Your task to perform on an android device: toggle wifi Image 0: 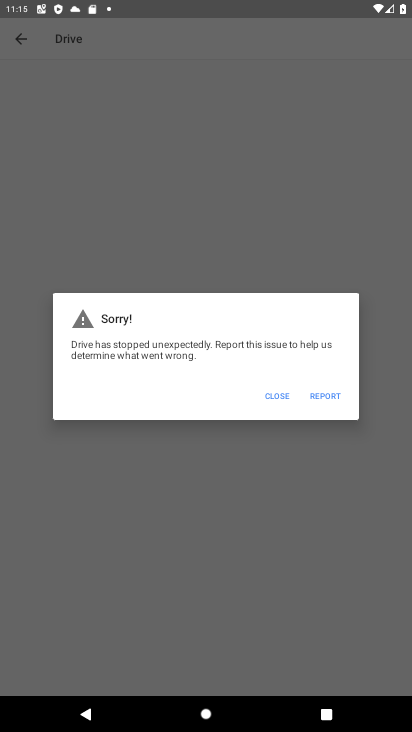
Step 0: press back button
Your task to perform on an android device: toggle wifi Image 1: 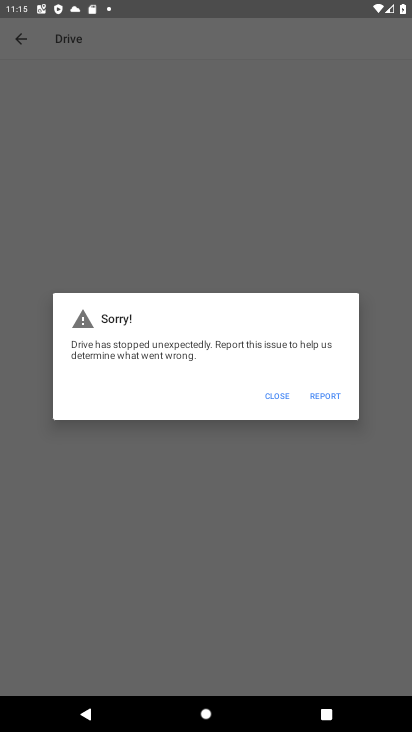
Step 1: press home button
Your task to perform on an android device: toggle wifi Image 2: 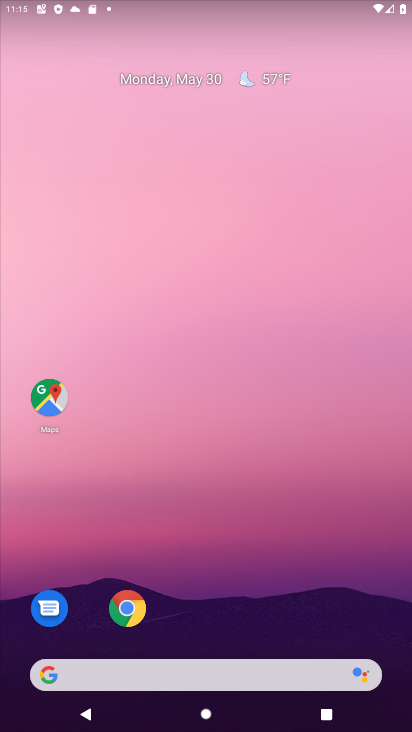
Step 2: drag from (319, 591) to (228, 32)
Your task to perform on an android device: toggle wifi Image 3: 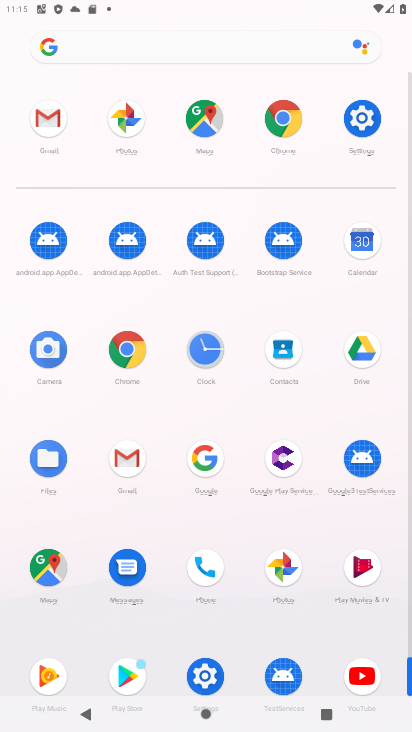
Step 3: click (201, 677)
Your task to perform on an android device: toggle wifi Image 4: 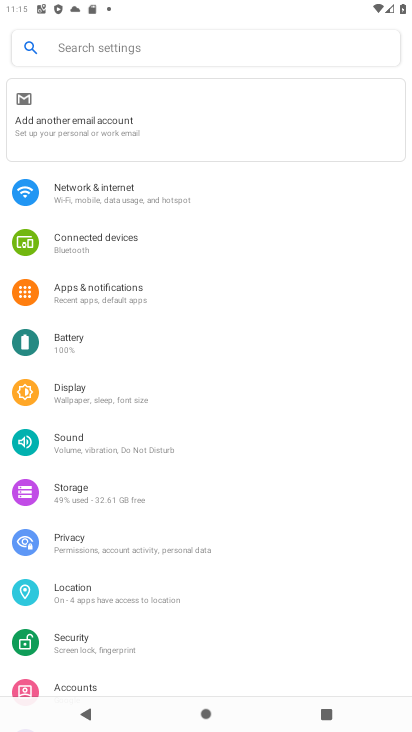
Step 4: click (156, 194)
Your task to perform on an android device: toggle wifi Image 5: 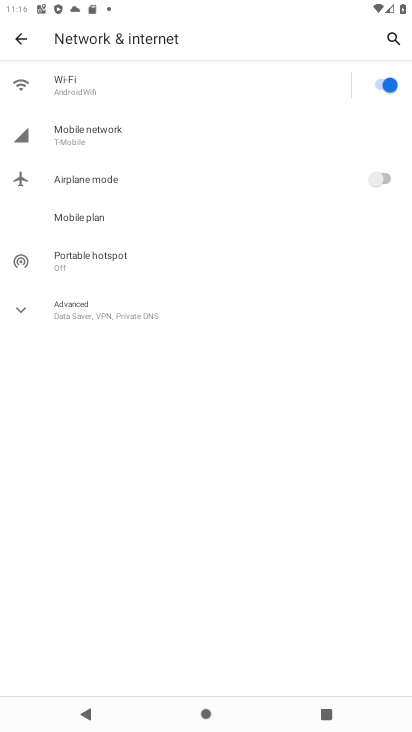
Step 5: click (383, 90)
Your task to perform on an android device: toggle wifi Image 6: 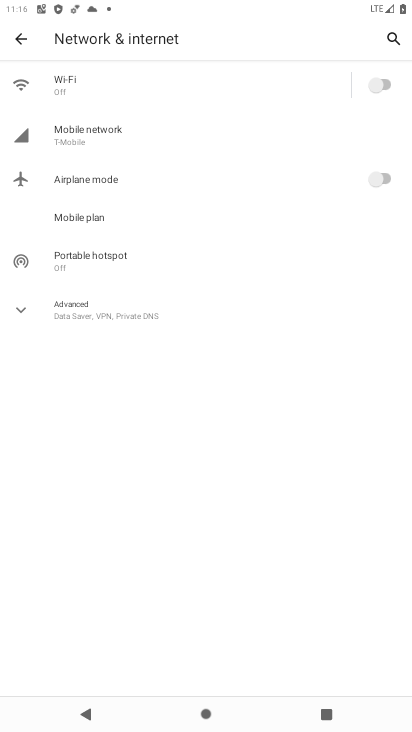
Step 6: click (381, 78)
Your task to perform on an android device: toggle wifi Image 7: 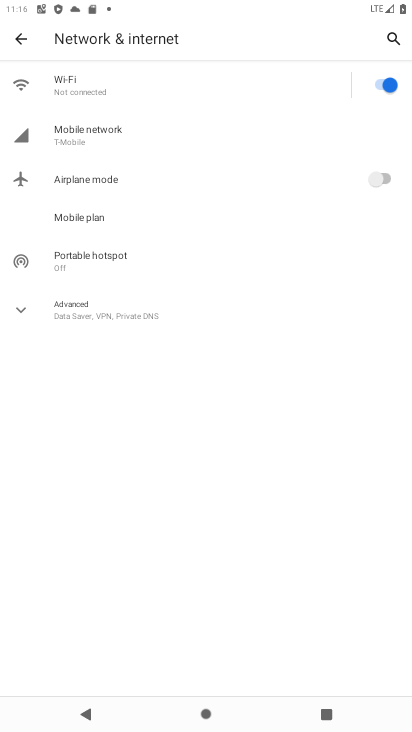
Step 7: task complete